Your task to perform on an android device: check out phone information Image 0: 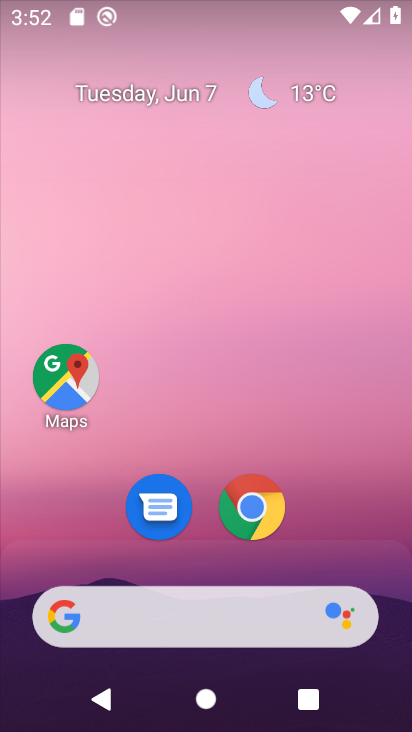
Step 0: drag from (368, 539) to (260, 25)
Your task to perform on an android device: check out phone information Image 1: 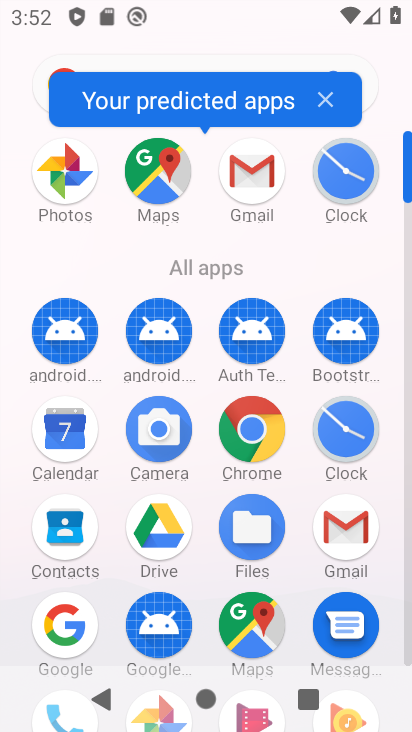
Step 1: drag from (12, 557) to (23, 234)
Your task to perform on an android device: check out phone information Image 2: 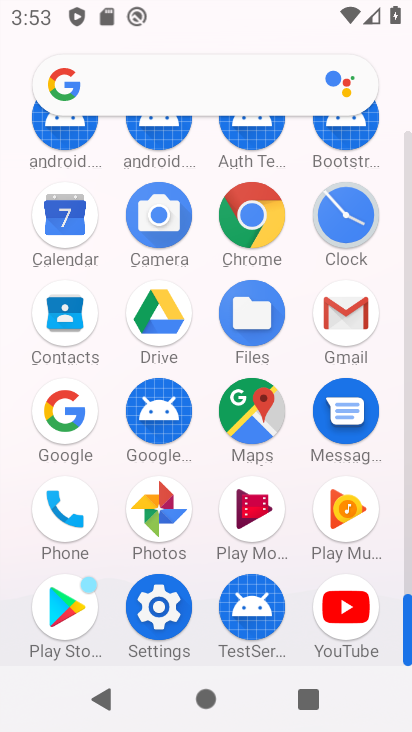
Step 2: click (166, 604)
Your task to perform on an android device: check out phone information Image 3: 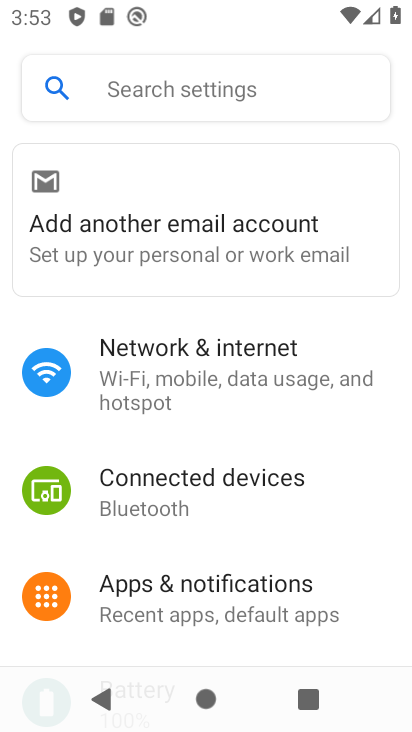
Step 3: drag from (278, 648) to (294, 190)
Your task to perform on an android device: check out phone information Image 4: 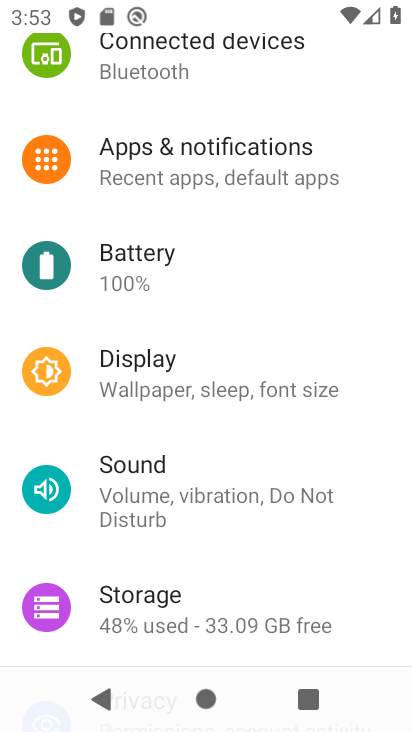
Step 4: drag from (260, 621) to (260, 123)
Your task to perform on an android device: check out phone information Image 5: 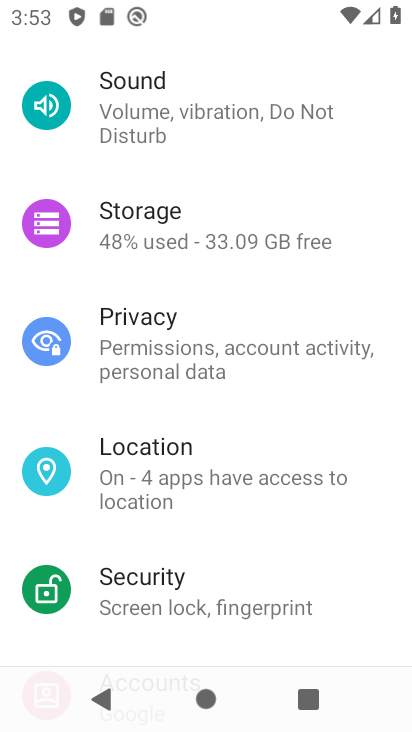
Step 5: drag from (218, 612) to (276, 168)
Your task to perform on an android device: check out phone information Image 6: 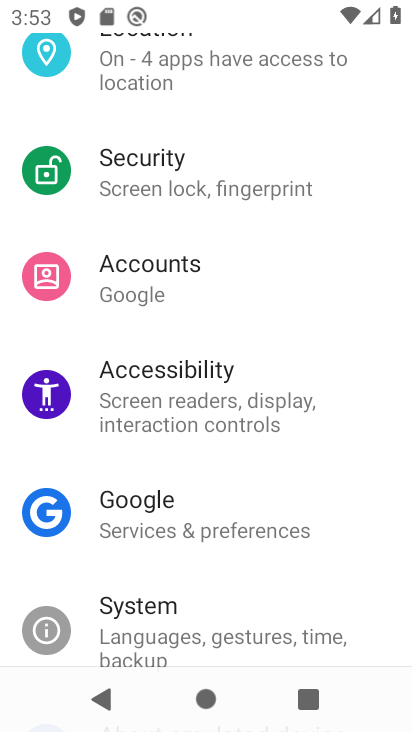
Step 6: drag from (225, 588) to (272, 122)
Your task to perform on an android device: check out phone information Image 7: 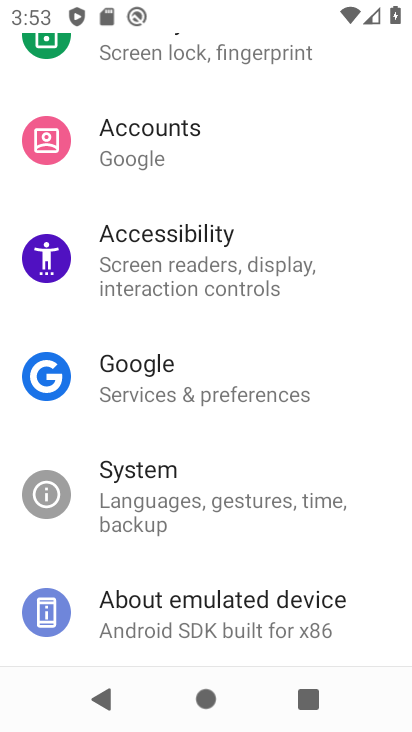
Step 7: click (202, 617)
Your task to perform on an android device: check out phone information Image 8: 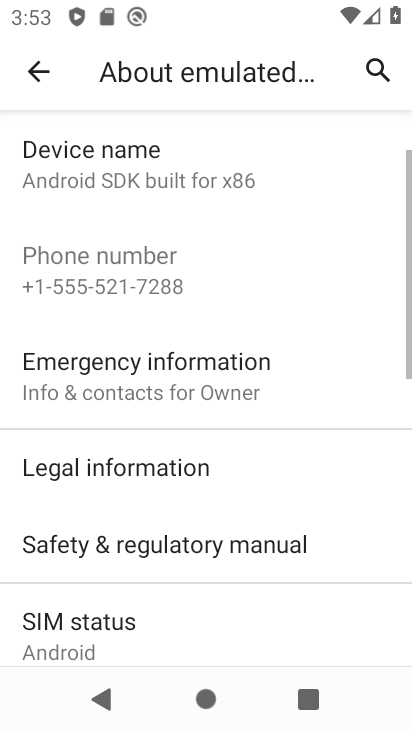
Step 8: task complete